Your task to perform on an android device: check the backup settings in the google photos Image 0: 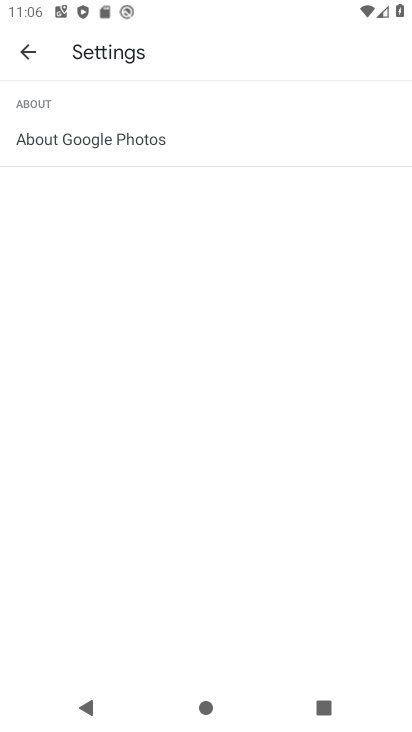
Step 0: press home button
Your task to perform on an android device: check the backup settings in the google photos Image 1: 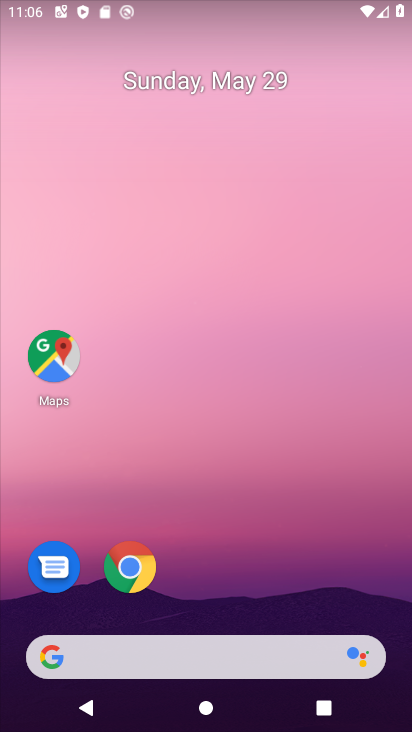
Step 1: drag from (174, 632) to (176, 34)
Your task to perform on an android device: check the backup settings in the google photos Image 2: 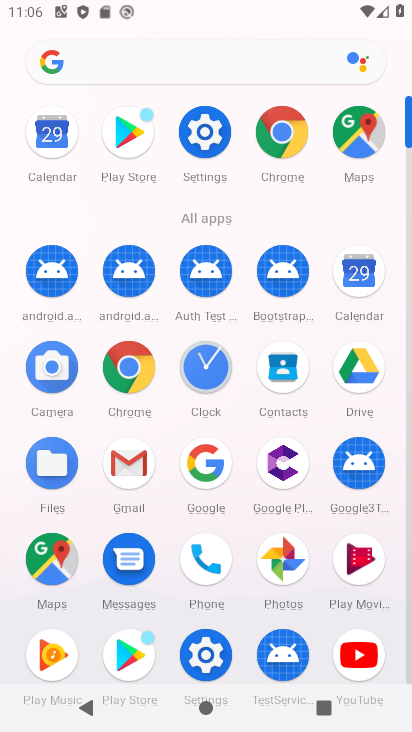
Step 2: click (278, 553)
Your task to perform on an android device: check the backup settings in the google photos Image 3: 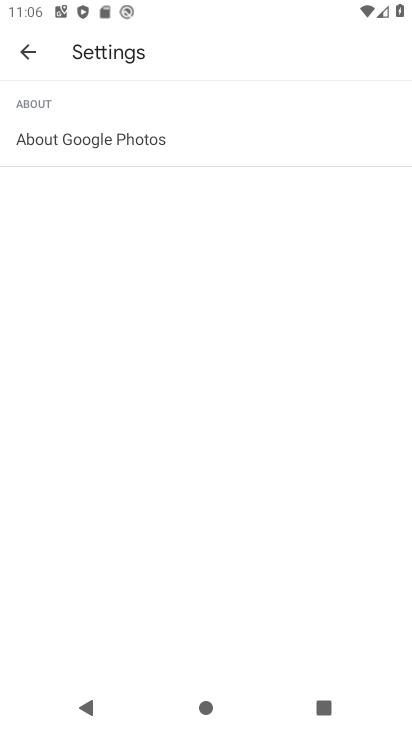
Step 3: click (36, 59)
Your task to perform on an android device: check the backup settings in the google photos Image 4: 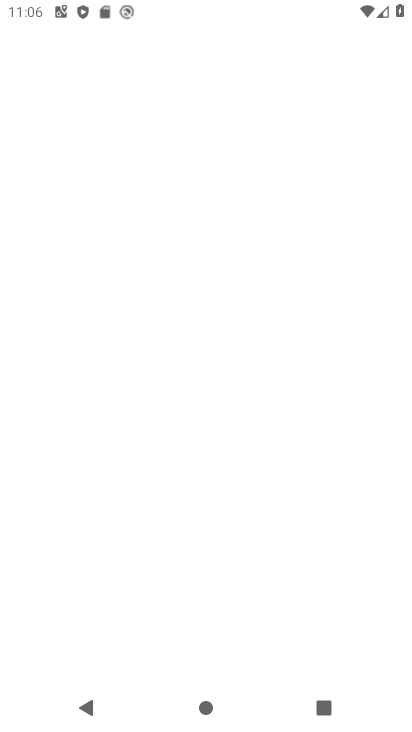
Step 4: click (36, 59)
Your task to perform on an android device: check the backup settings in the google photos Image 5: 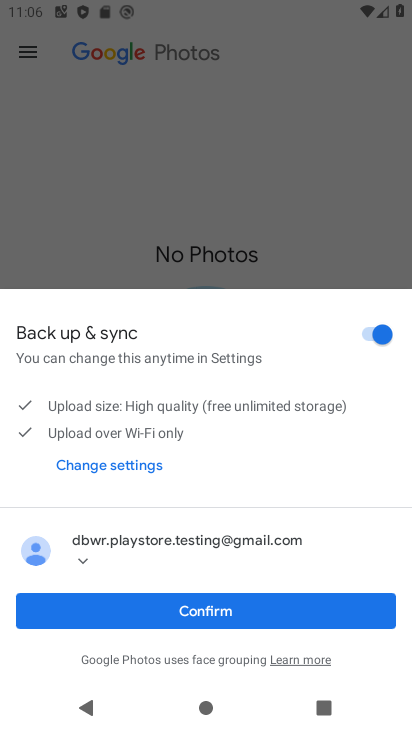
Step 5: click (91, 477)
Your task to perform on an android device: check the backup settings in the google photos Image 6: 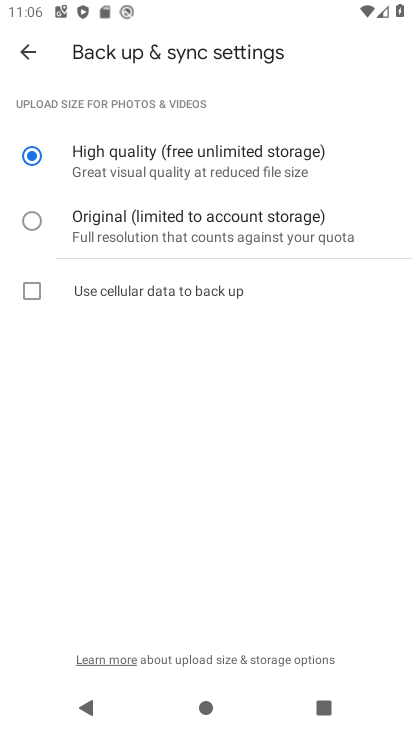
Step 6: task complete